Your task to perform on an android device: Go to settings Image 0: 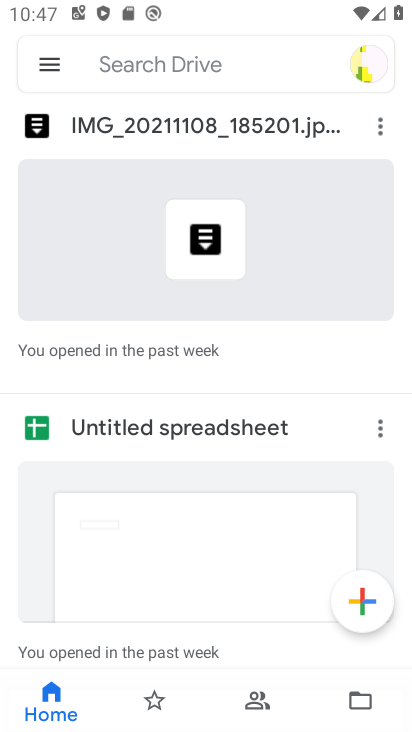
Step 0: press home button
Your task to perform on an android device: Go to settings Image 1: 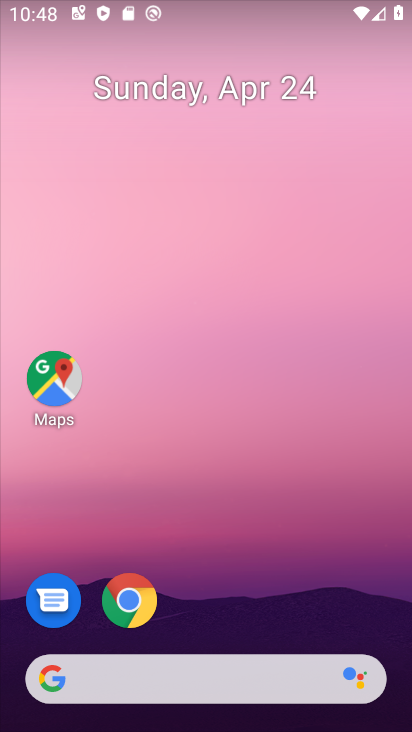
Step 1: drag from (213, 613) to (220, 125)
Your task to perform on an android device: Go to settings Image 2: 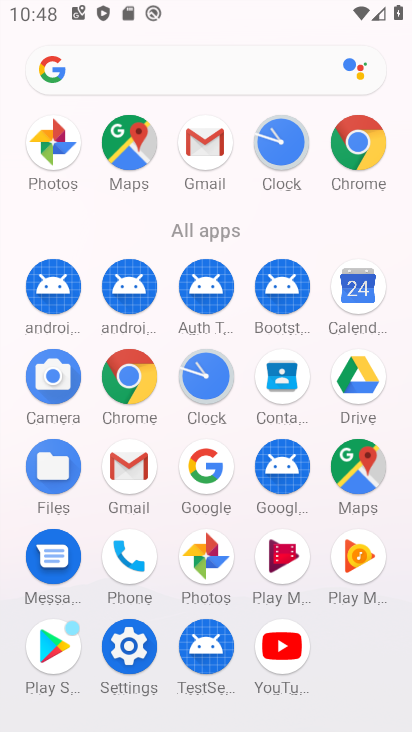
Step 2: click (124, 657)
Your task to perform on an android device: Go to settings Image 3: 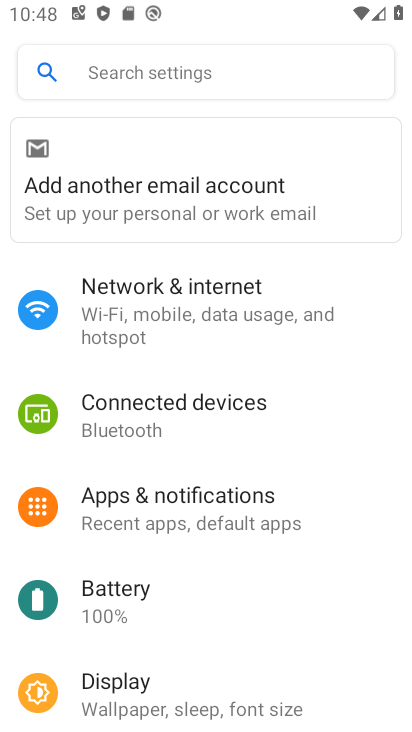
Step 3: task complete